Your task to perform on an android device: Go to Wikipedia Image 0: 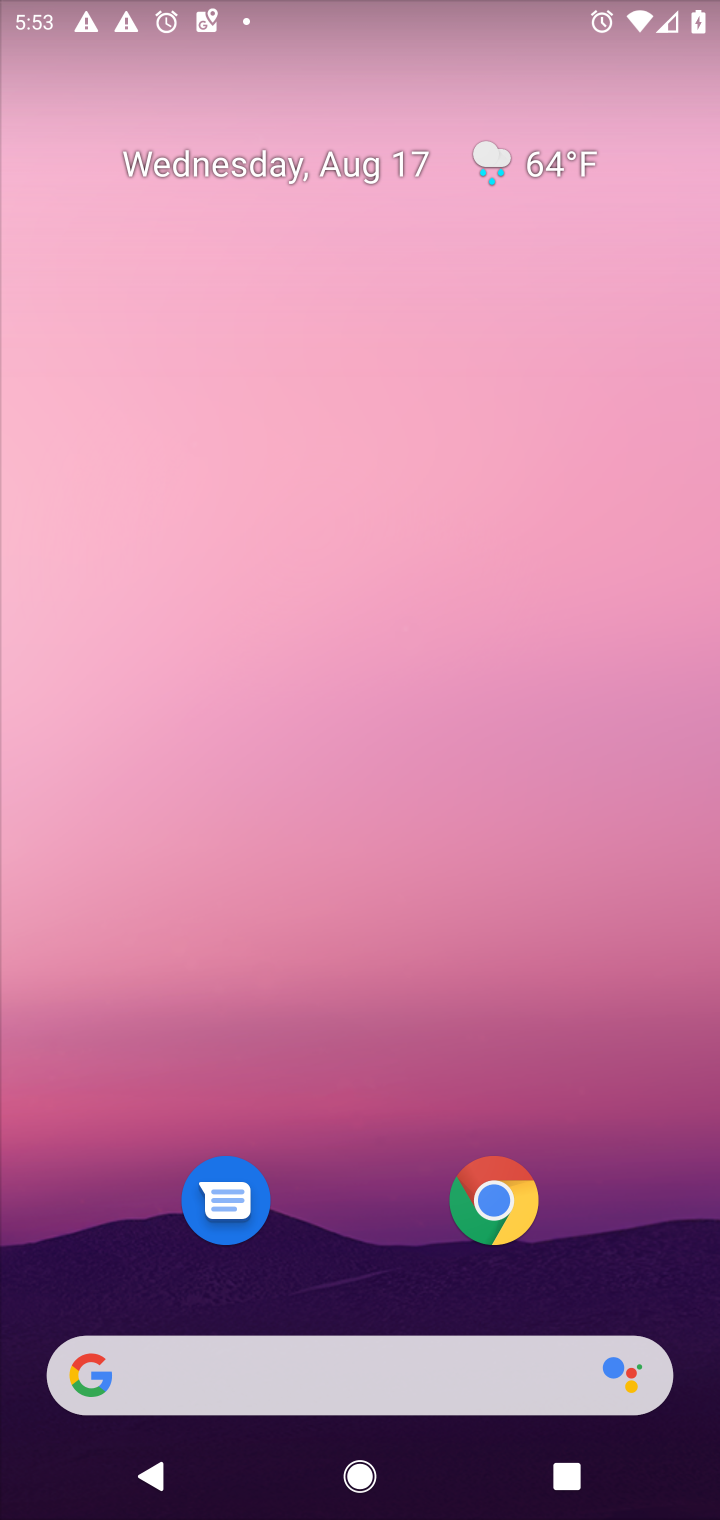
Step 0: click (492, 1200)
Your task to perform on an android device: Go to Wikipedia Image 1: 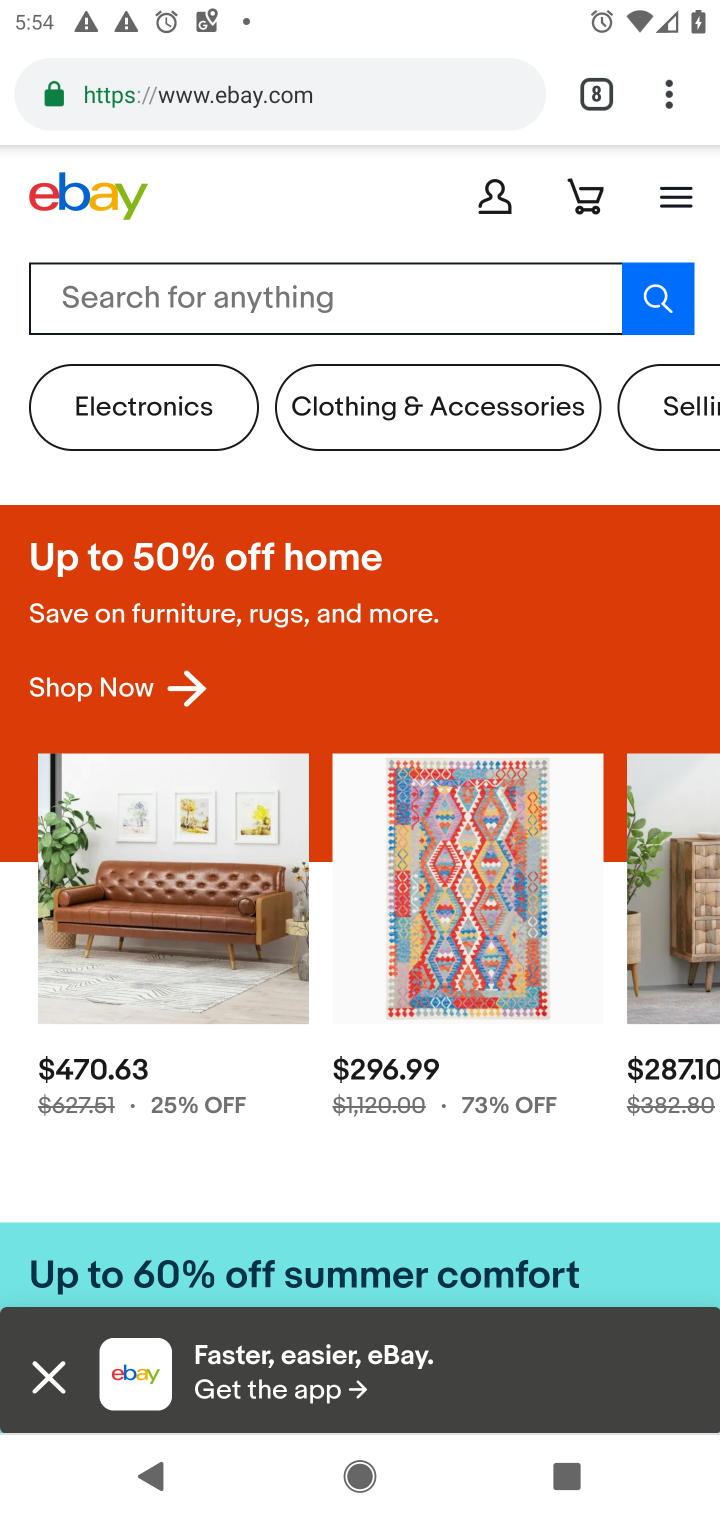
Step 1: drag from (663, 105) to (302, 193)
Your task to perform on an android device: Go to Wikipedia Image 2: 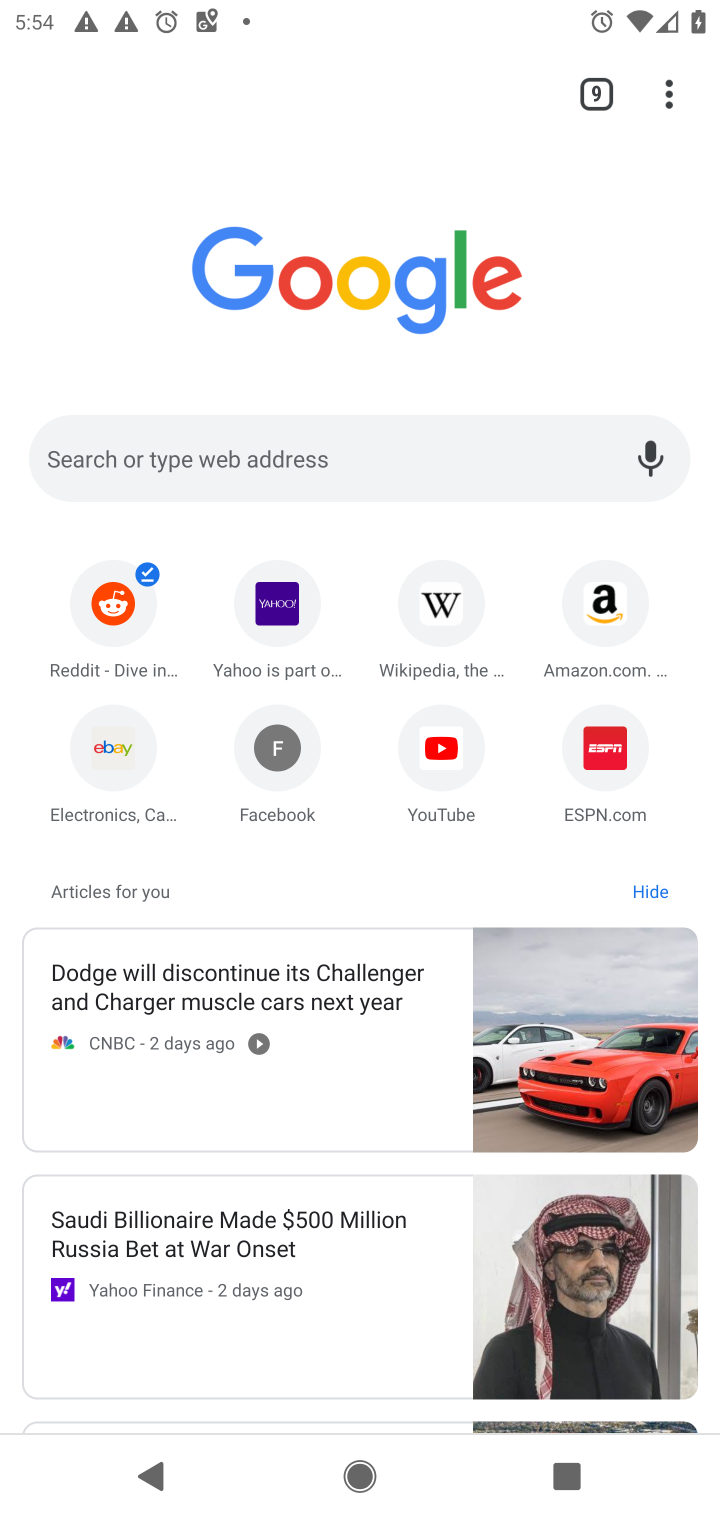
Step 2: click (432, 612)
Your task to perform on an android device: Go to Wikipedia Image 3: 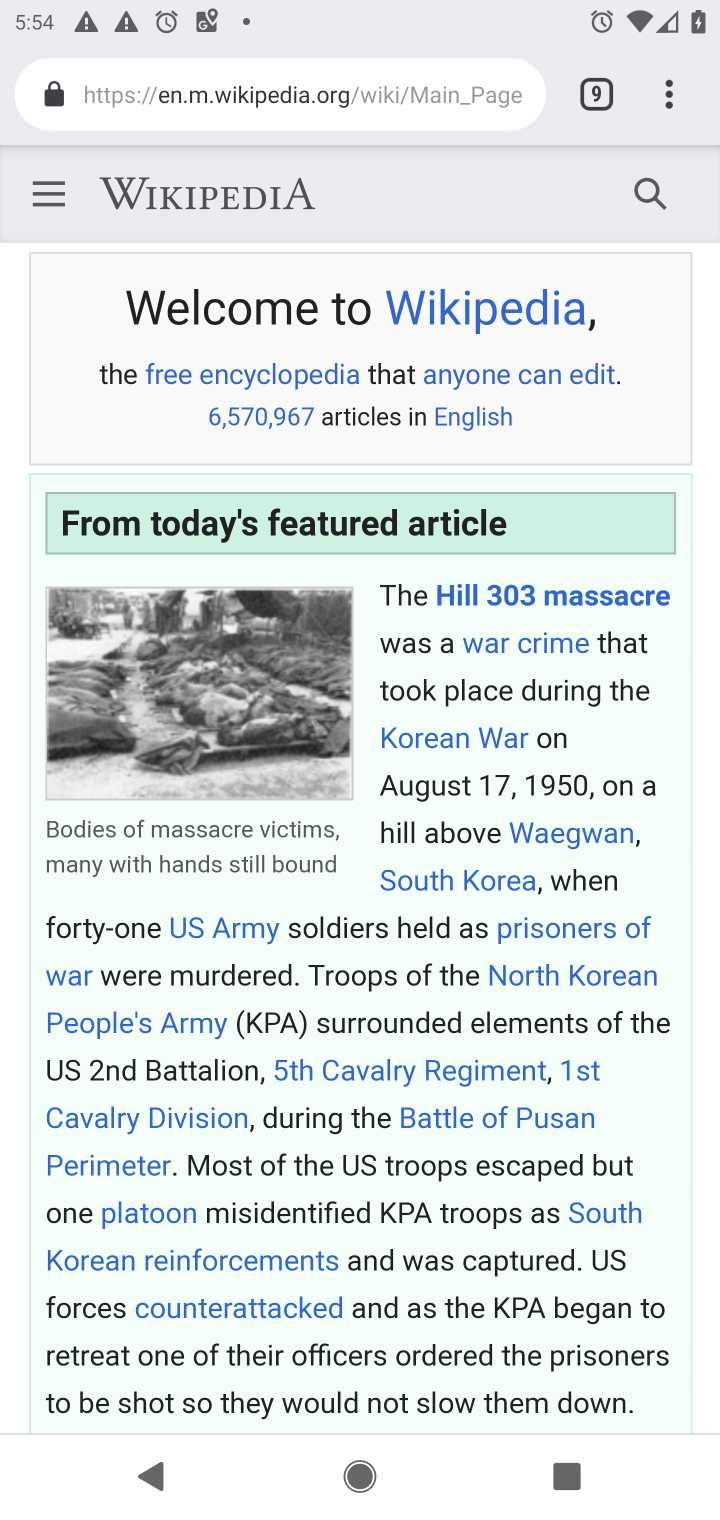
Step 3: task complete